Your task to perform on an android device: change text size in settings app Image 0: 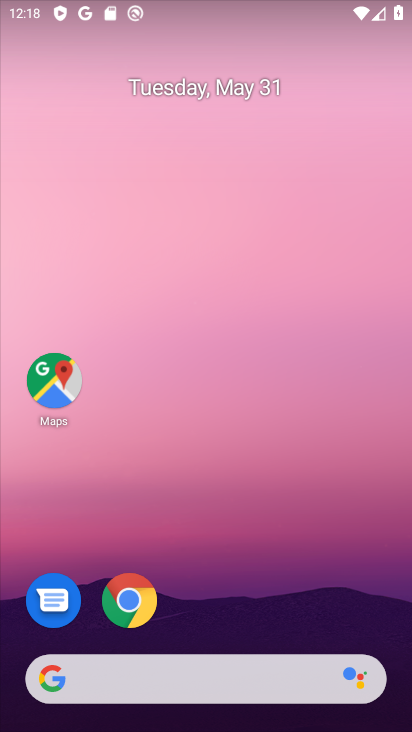
Step 0: drag from (196, 623) to (331, 36)
Your task to perform on an android device: change text size in settings app Image 1: 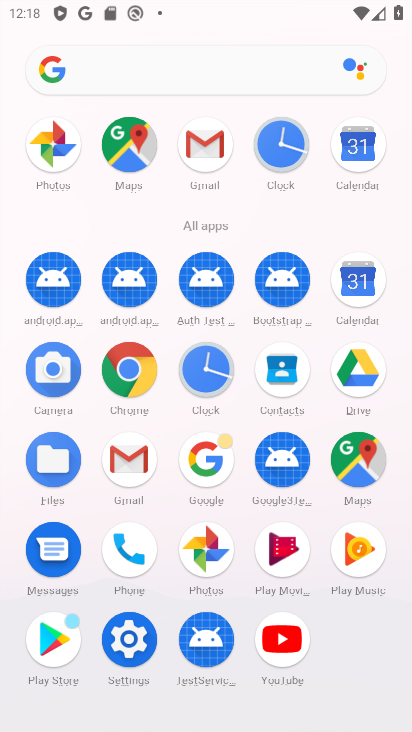
Step 1: click (127, 670)
Your task to perform on an android device: change text size in settings app Image 2: 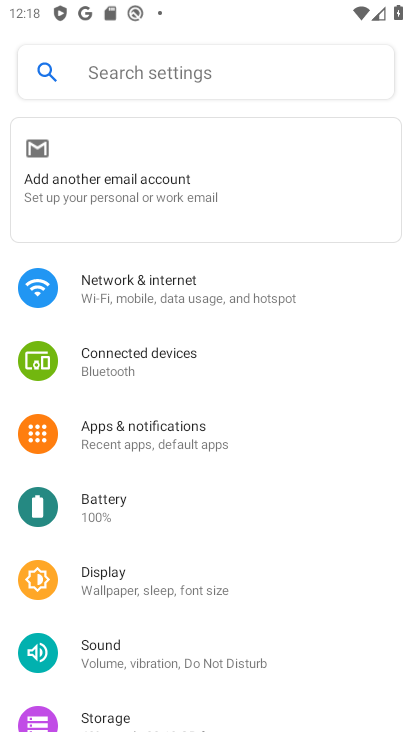
Step 2: click (107, 587)
Your task to perform on an android device: change text size in settings app Image 3: 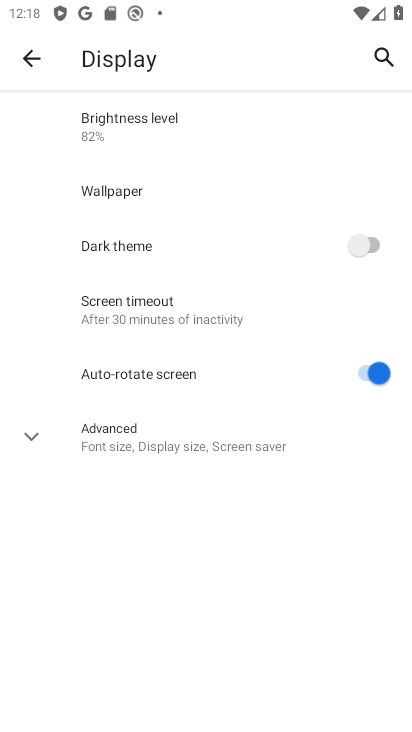
Step 3: click (149, 428)
Your task to perform on an android device: change text size in settings app Image 4: 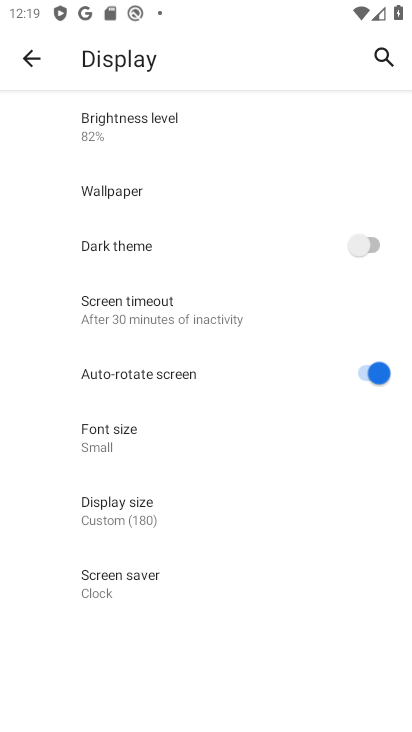
Step 4: click (117, 435)
Your task to perform on an android device: change text size in settings app Image 5: 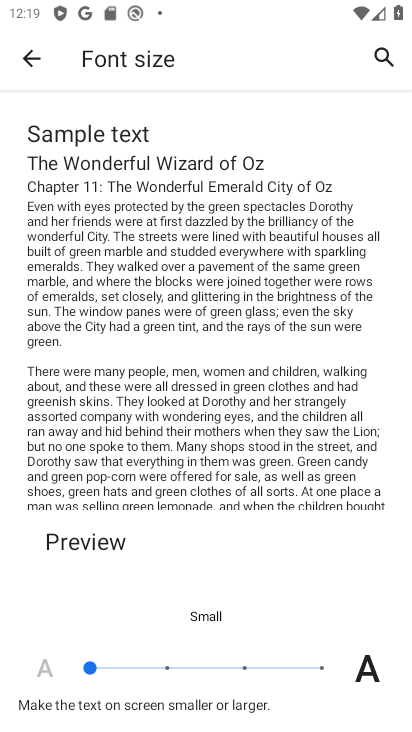
Step 5: click (163, 663)
Your task to perform on an android device: change text size in settings app Image 6: 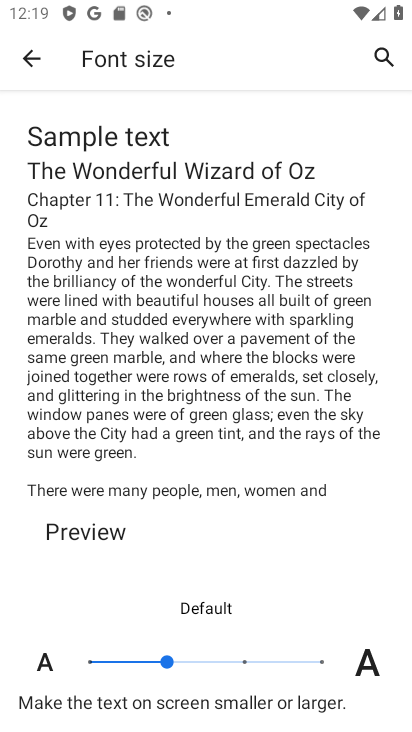
Step 6: task complete